Your task to perform on an android device: toggle priority inbox in the gmail app Image 0: 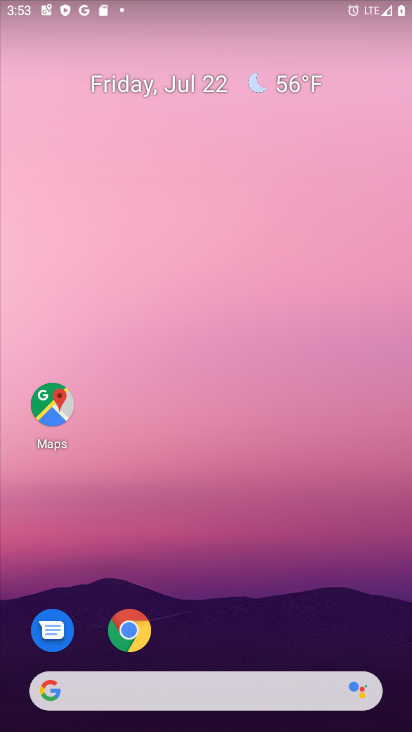
Step 0: drag from (222, 698) to (169, 58)
Your task to perform on an android device: toggle priority inbox in the gmail app Image 1: 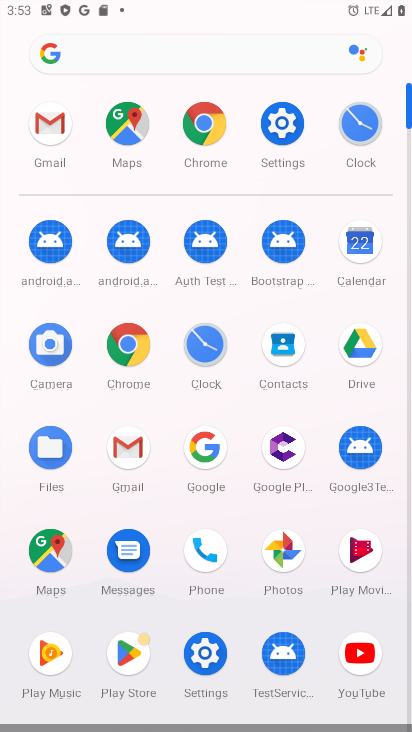
Step 1: click (118, 452)
Your task to perform on an android device: toggle priority inbox in the gmail app Image 2: 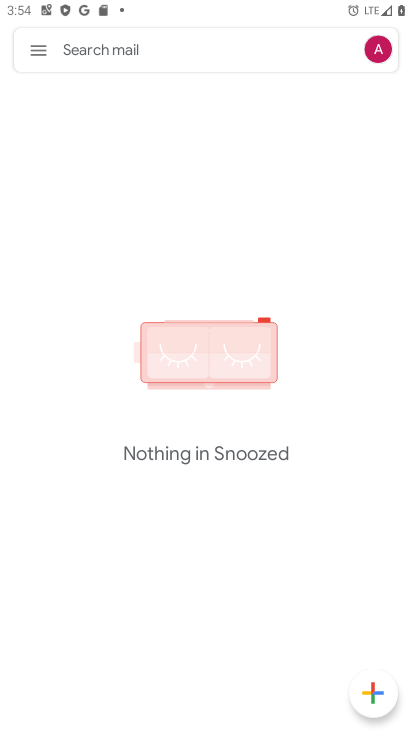
Step 2: click (44, 48)
Your task to perform on an android device: toggle priority inbox in the gmail app Image 3: 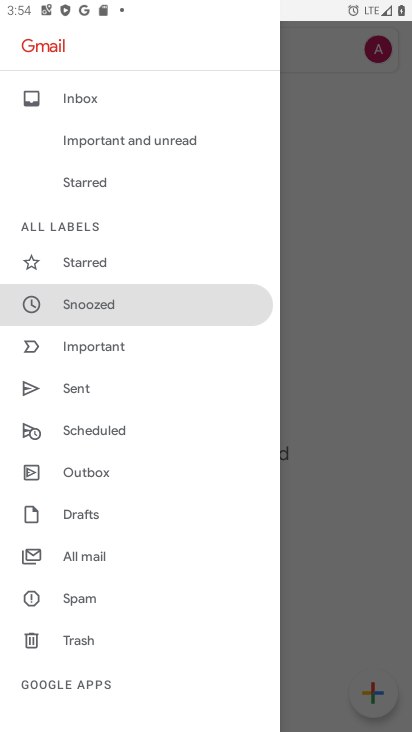
Step 3: drag from (101, 599) to (73, 148)
Your task to perform on an android device: toggle priority inbox in the gmail app Image 4: 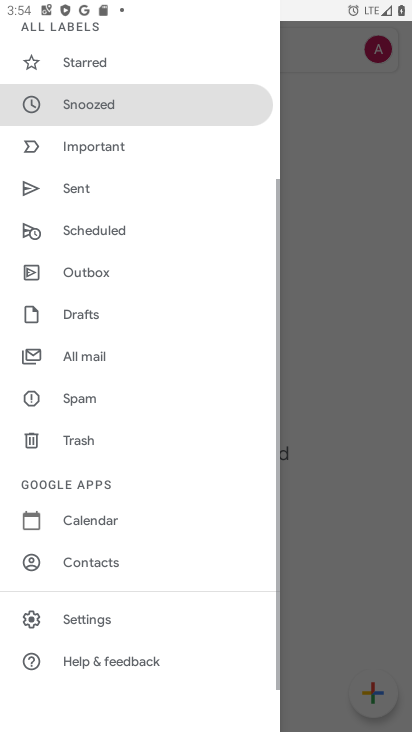
Step 4: click (93, 628)
Your task to perform on an android device: toggle priority inbox in the gmail app Image 5: 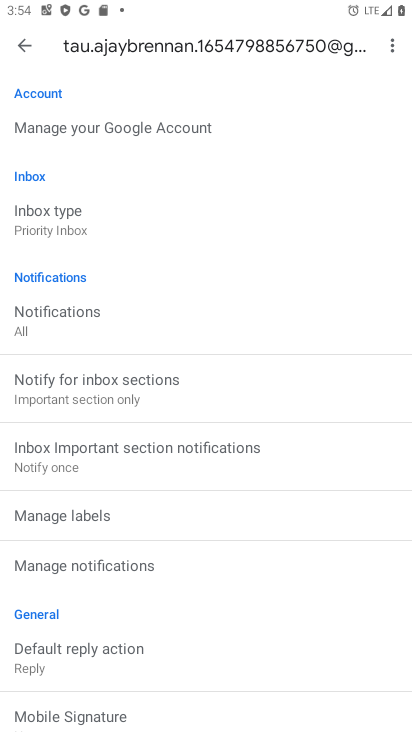
Step 5: click (62, 230)
Your task to perform on an android device: toggle priority inbox in the gmail app Image 6: 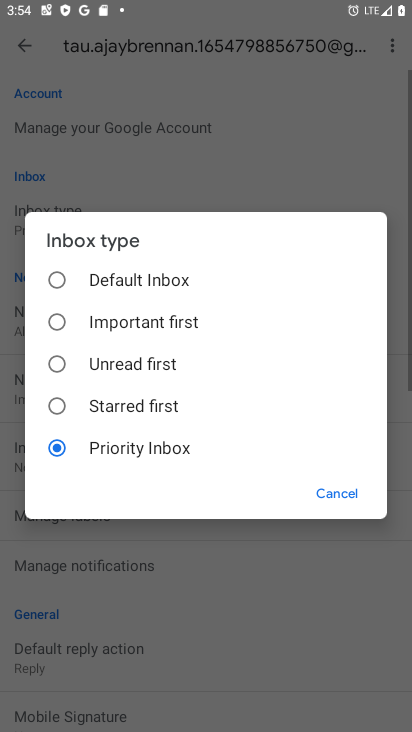
Step 6: click (100, 276)
Your task to perform on an android device: toggle priority inbox in the gmail app Image 7: 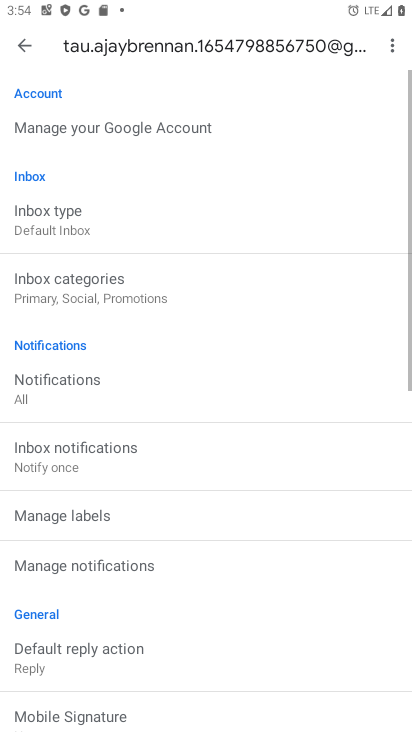
Step 7: task complete